Your task to perform on an android device: What's the weather? Image 0: 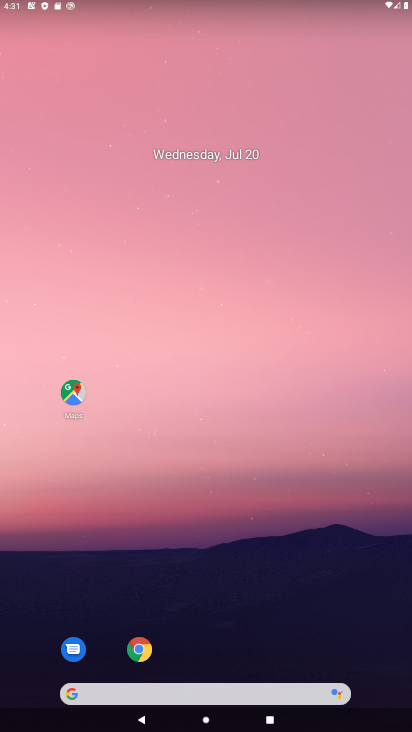
Step 0: drag from (221, 591) to (270, 62)
Your task to perform on an android device: What's the weather? Image 1: 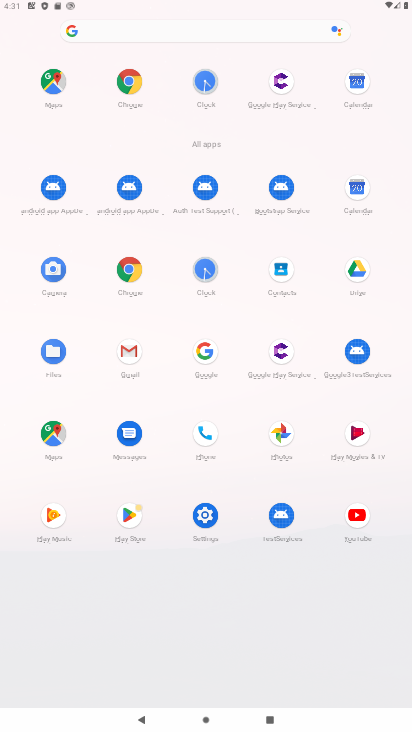
Step 1: click (197, 347)
Your task to perform on an android device: What's the weather? Image 2: 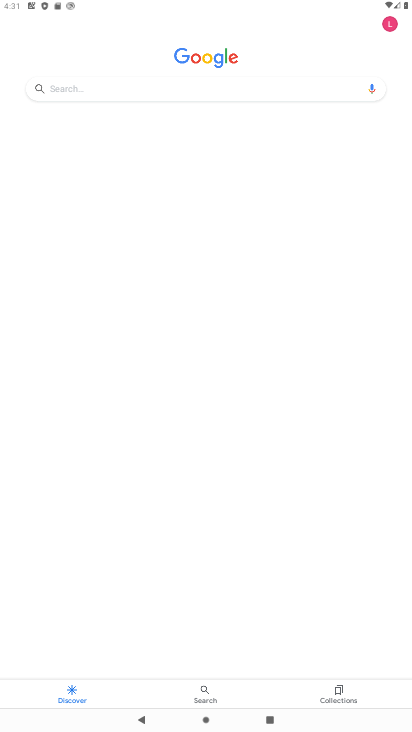
Step 2: click (83, 88)
Your task to perform on an android device: What's the weather? Image 3: 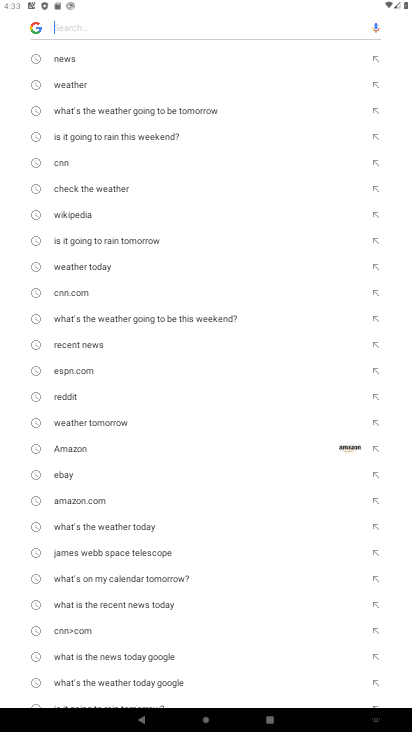
Step 3: click (71, 88)
Your task to perform on an android device: What's the weather? Image 4: 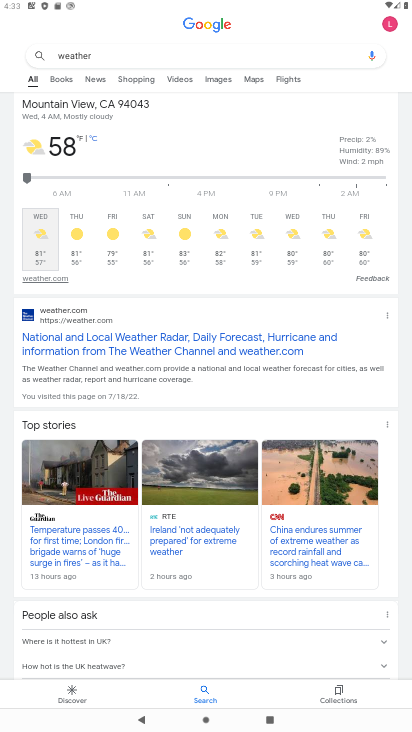
Step 4: task complete